Your task to perform on an android device: Search for Mexican restaurants on Maps Image 0: 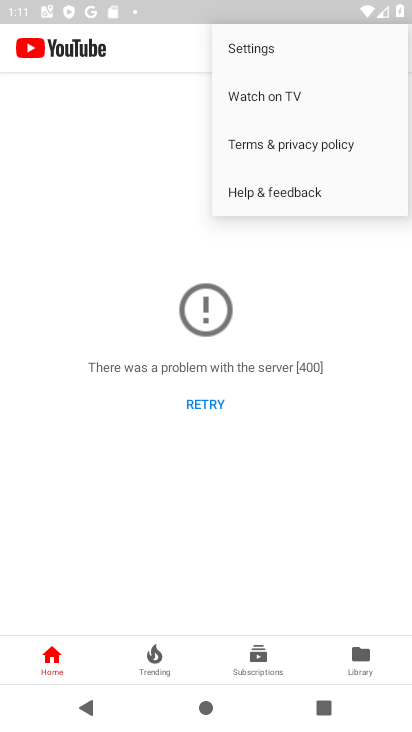
Step 0: press home button
Your task to perform on an android device: Search for Mexican restaurants on Maps Image 1: 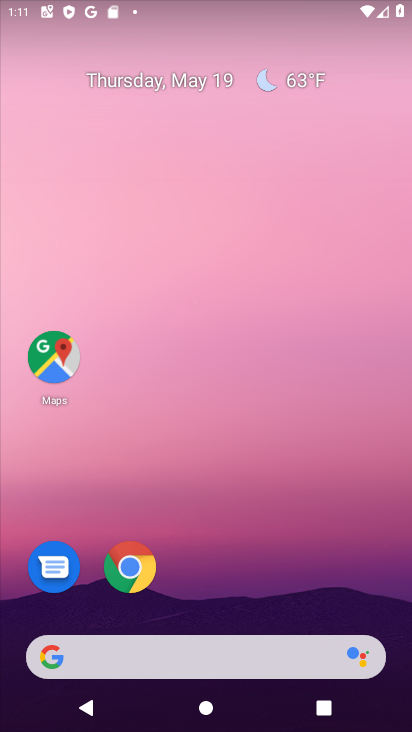
Step 1: click (39, 368)
Your task to perform on an android device: Search for Mexican restaurants on Maps Image 2: 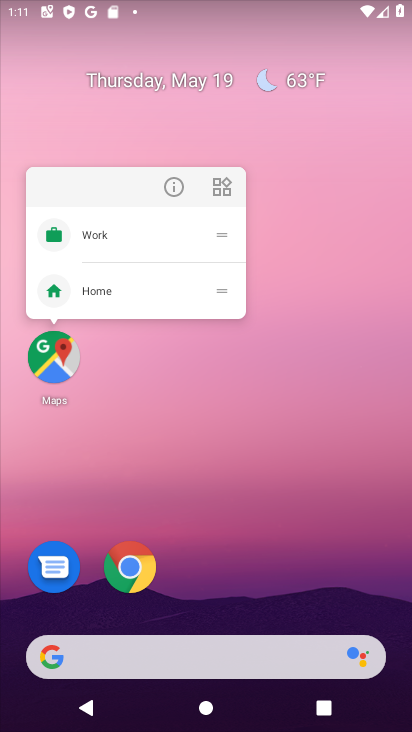
Step 2: click (39, 368)
Your task to perform on an android device: Search for Mexican restaurants on Maps Image 3: 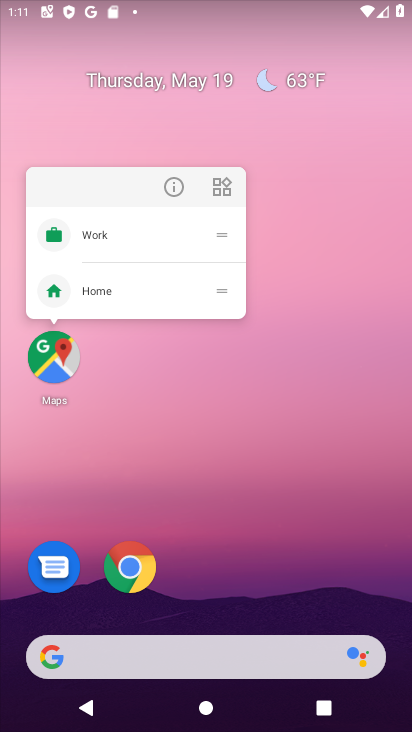
Step 3: click (39, 366)
Your task to perform on an android device: Search for Mexican restaurants on Maps Image 4: 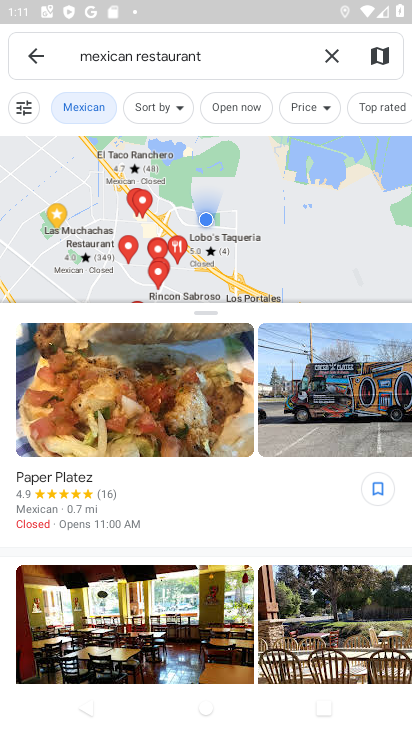
Step 4: task complete